Your task to perform on an android device: Do I have any events today? Image 0: 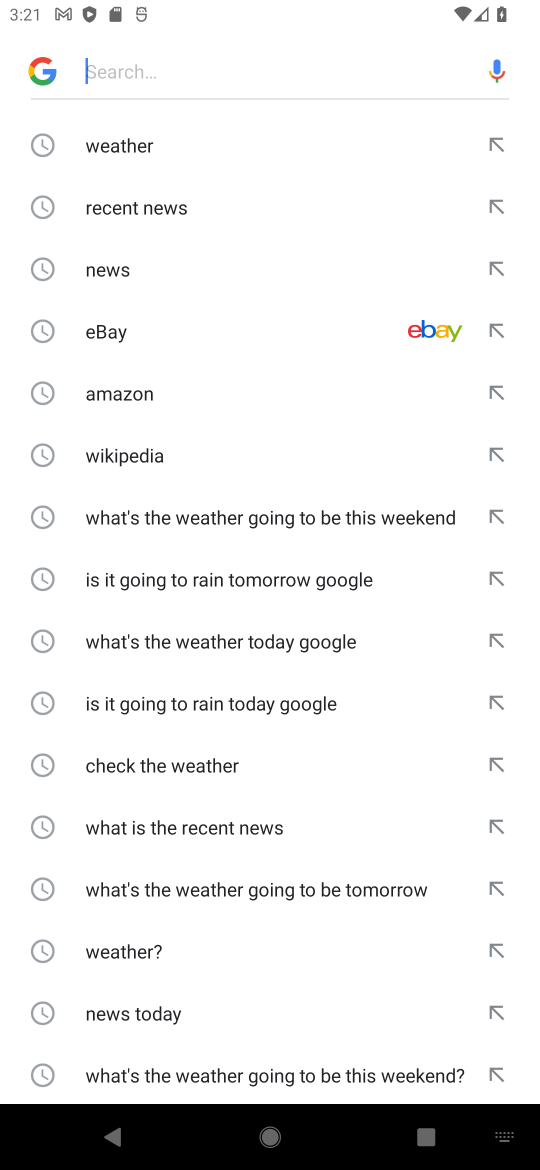
Step 0: press home button
Your task to perform on an android device: Do I have any events today? Image 1: 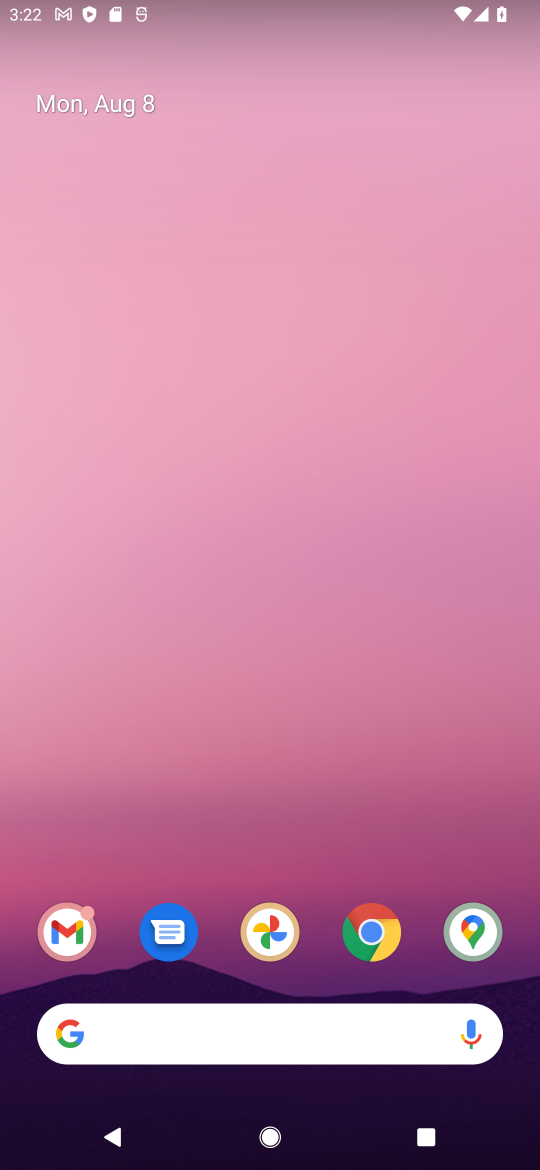
Step 1: drag from (328, 898) to (281, 79)
Your task to perform on an android device: Do I have any events today? Image 2: 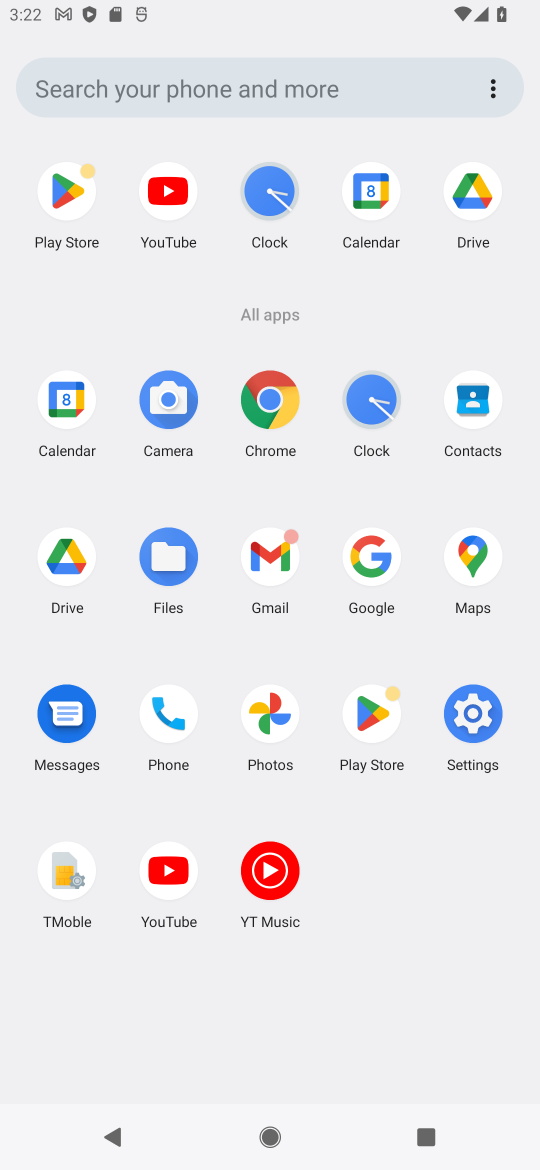
Step 2: click (64, 427)
Your task to perform on an android device: Do I have any events today? Image 3: 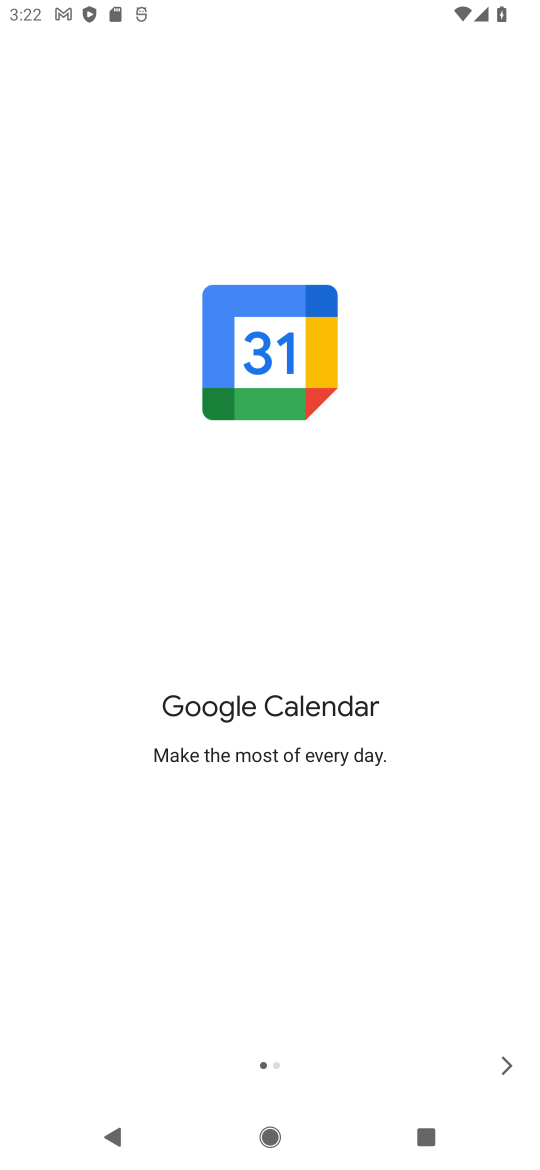
Step 3: click (521, 1062)
Your task to perform on an android device: Do I have any events today? Image 4: 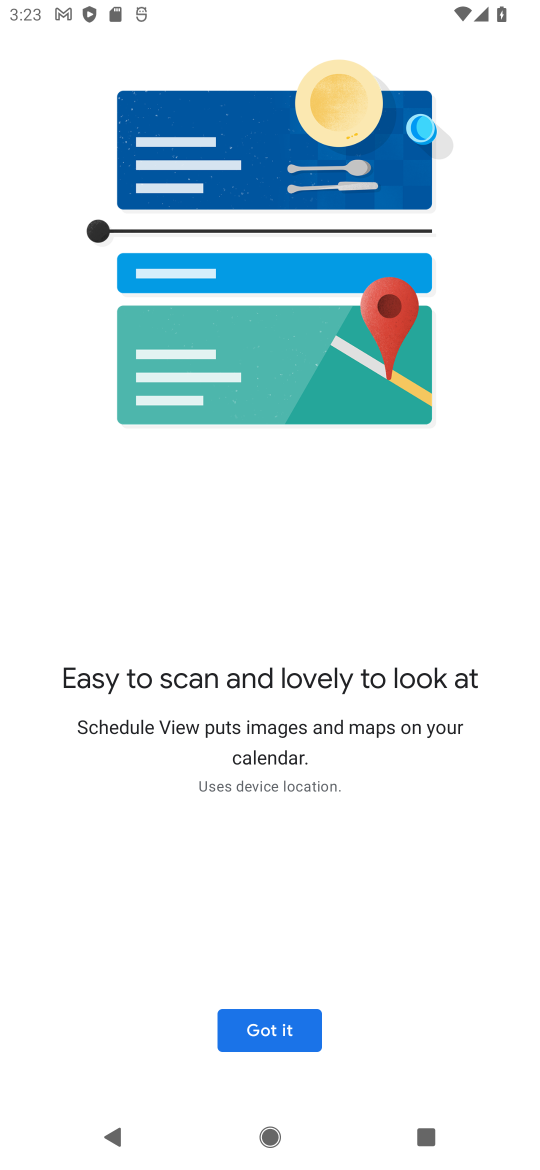
Step 4: click (281, 1045)
Your task to perform on an android device: Do I have any events today? Image 5: 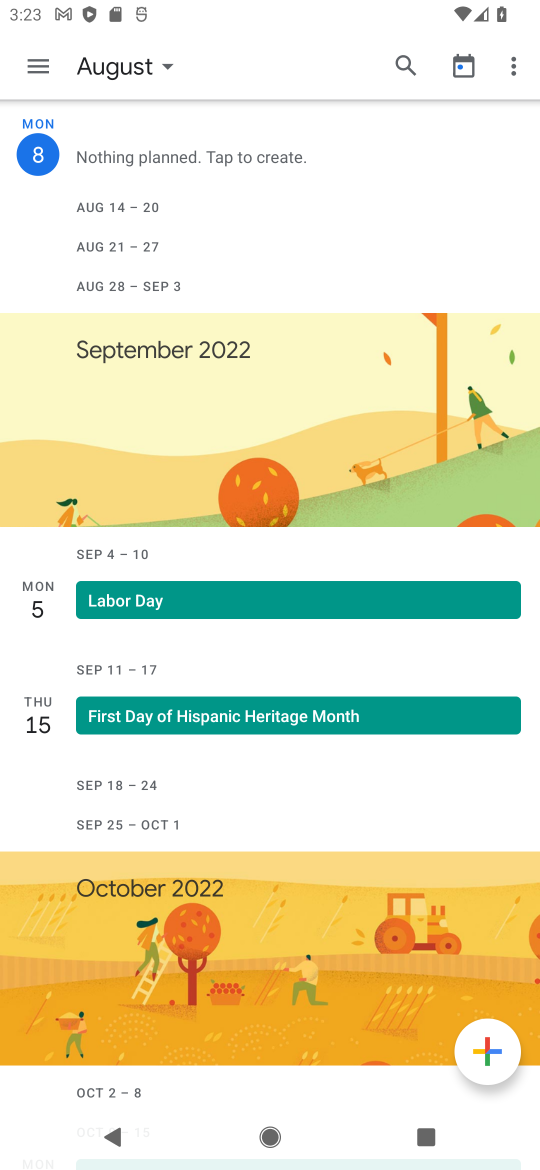
Step 5: click (107, 59)
Your task to perform on an android device: Do I have any events today? Image 6: 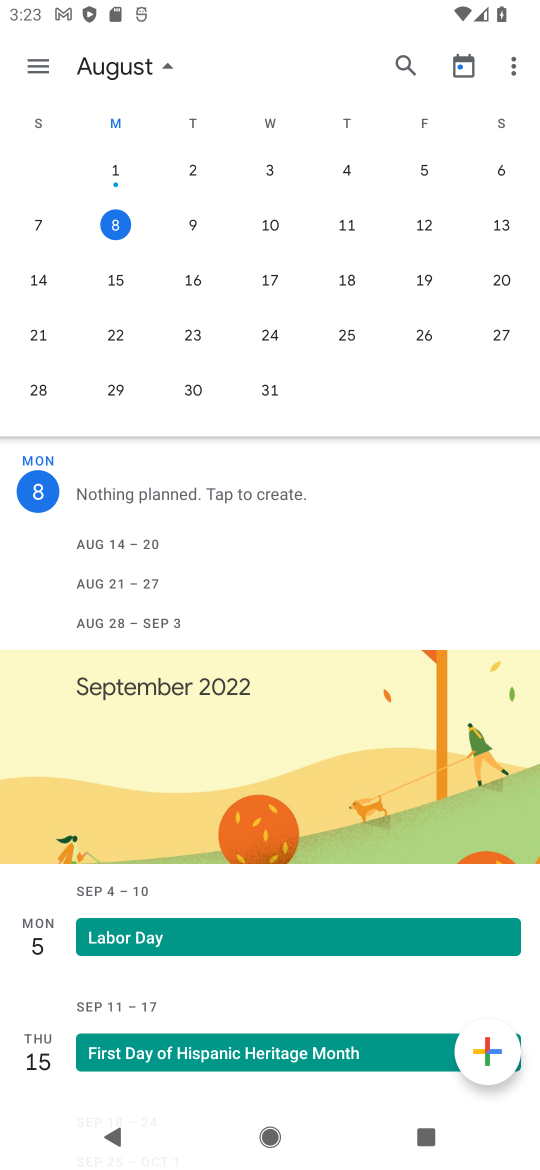
Step 6: click (109, 225)
Your task to perform on an android device: Do I have any events today? Image 7: 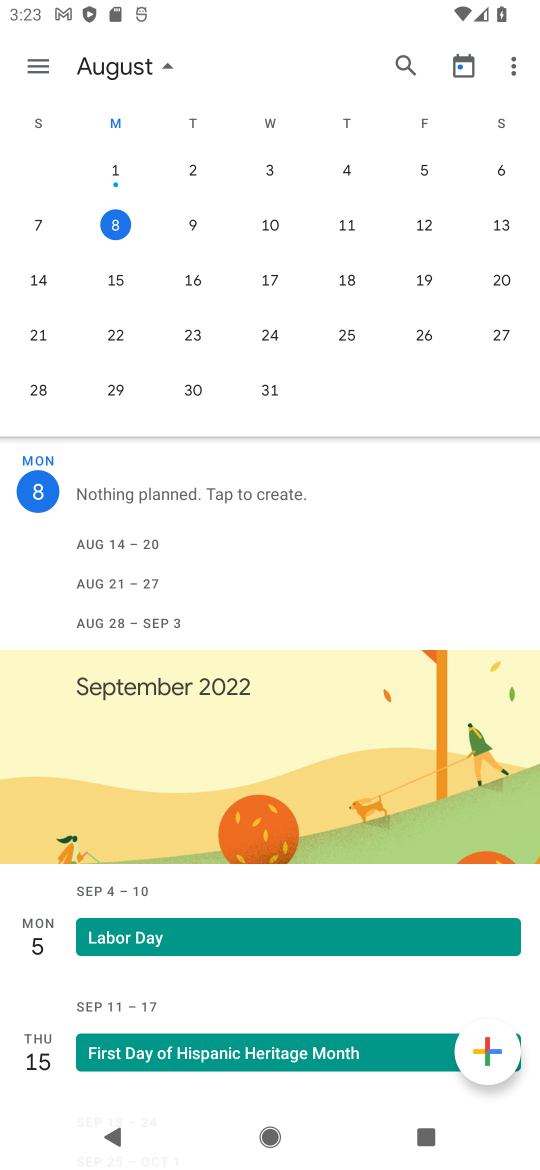
Step 7: task complete